Your task to perform on an android device: change notification settings in the gmail app Image 0: 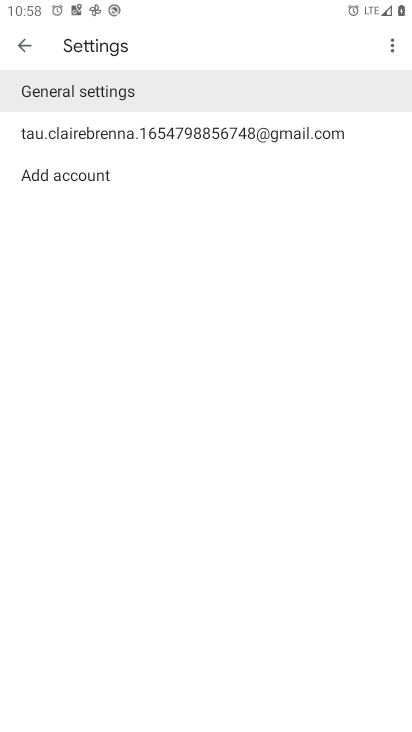
Step 0: press home button
Your task to perform on an android device: change notification settings in the gmail app Image 1: 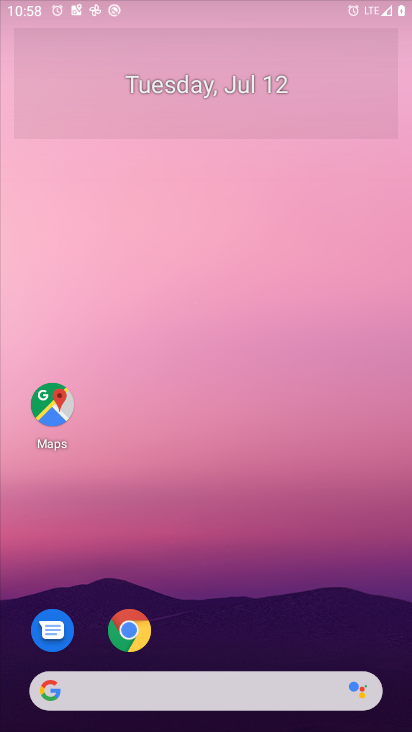
Step 1: drag from (276, 599) to (243, 114)
Your task to perform on an android device: change notification settings in the gmail app Image 2: 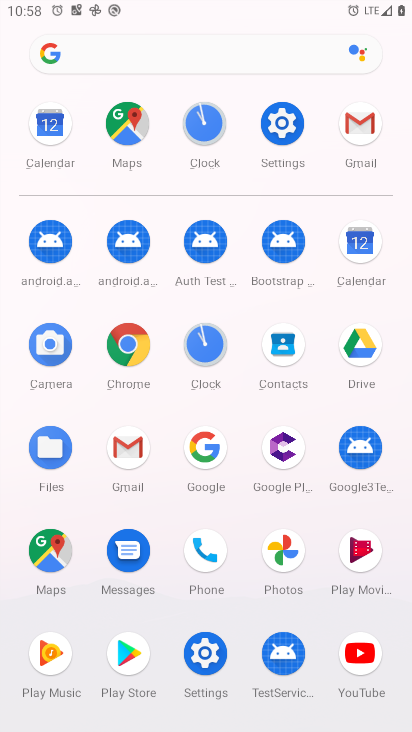
Step 2: click (372, 131)
Your task to perform on an android device: change notification settings in the gmail app Image 3: 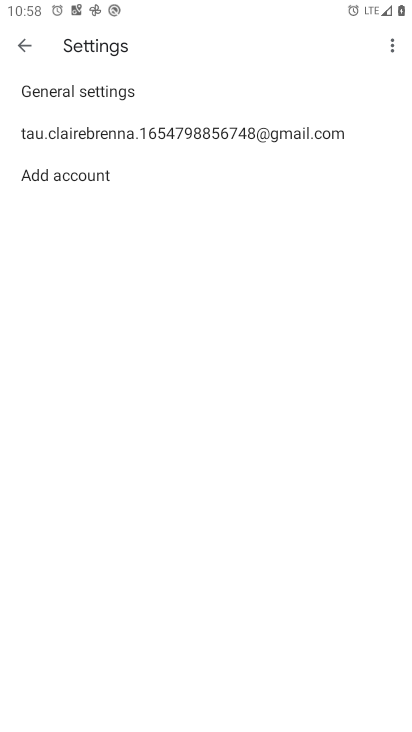
Step 3: click (63, 135)
Your task to perform on an android device: change notification settings in the gmail app Image 4: 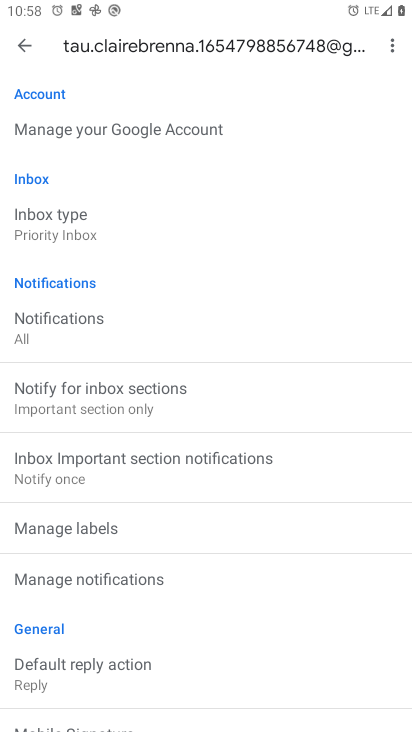
Step 4: click (57, 583)
Your task to perform on an android device: change notification settings in the gmail app Image 5: 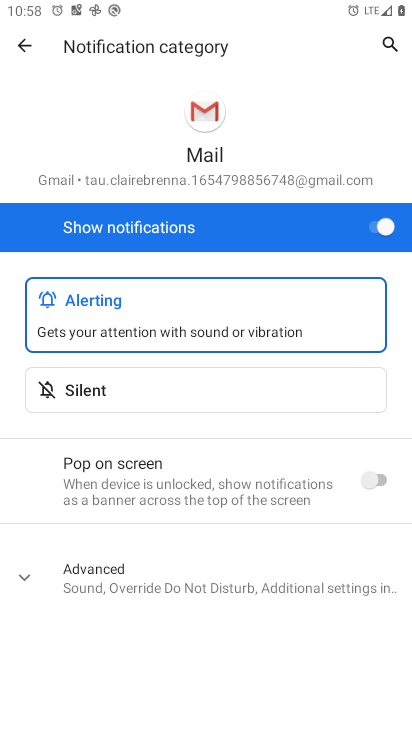
Step 5: click (385, 237)
Your task to perform on an android device: change notification settings in the gmail app Image 6: 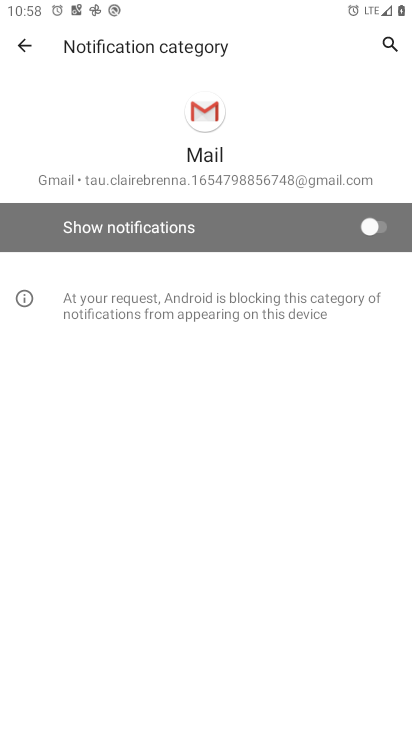
Step 6: task complete